Your task to perform on an android device: change notification settings in the gmail app Image 0: 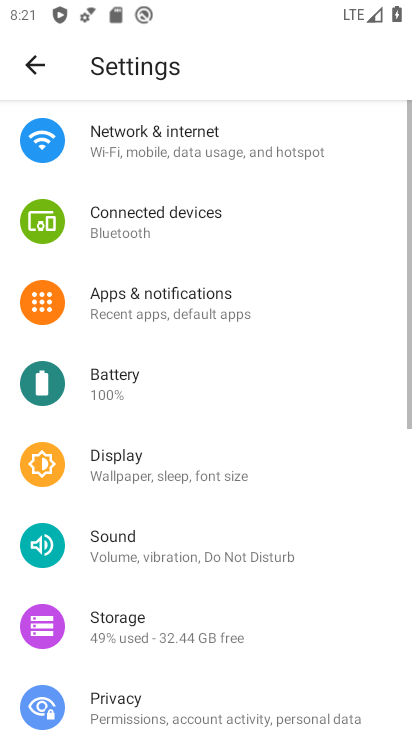
Step 0: press home button
Your task to perform on an android device: change notification settings in the gmail app Image 1: 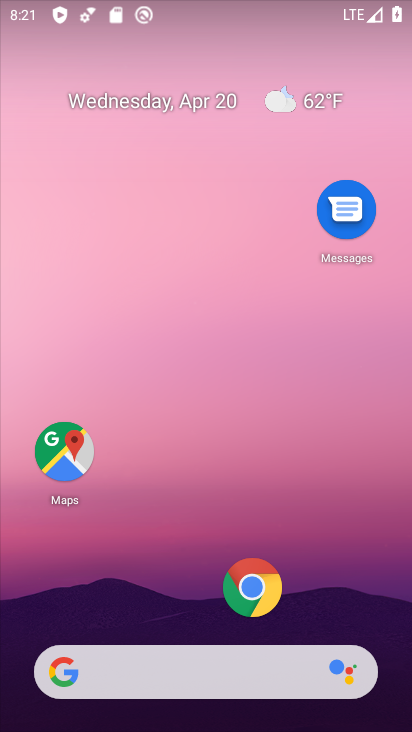
Step 1: drag from (145, 664) to (288, 122)
Your task to perform on an android device: change notification settings in the gmail app Image 2: 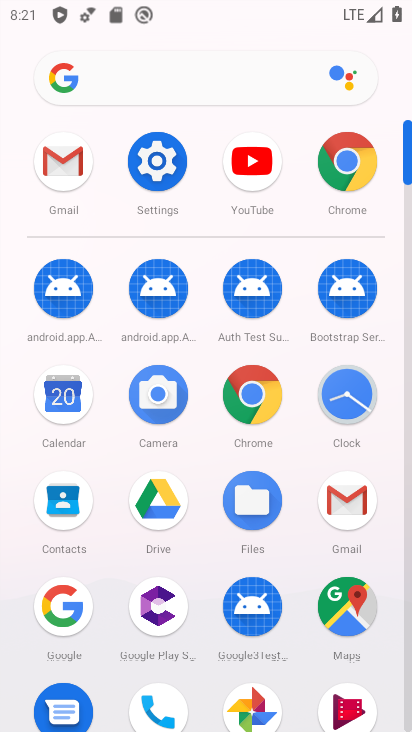
Step 2: click (66, 166)
Your task to perform on an android device: change notification settings in the gmail app Image 3: 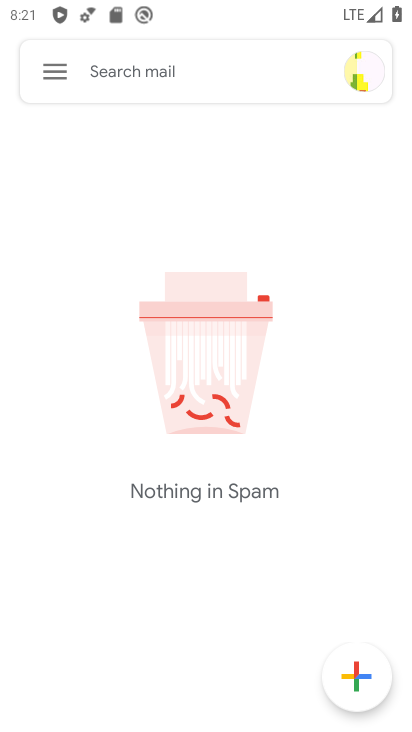
Step 3: click (53, 72)
Your task to perform on an android device: change notification settings in the gmail app Image 4: 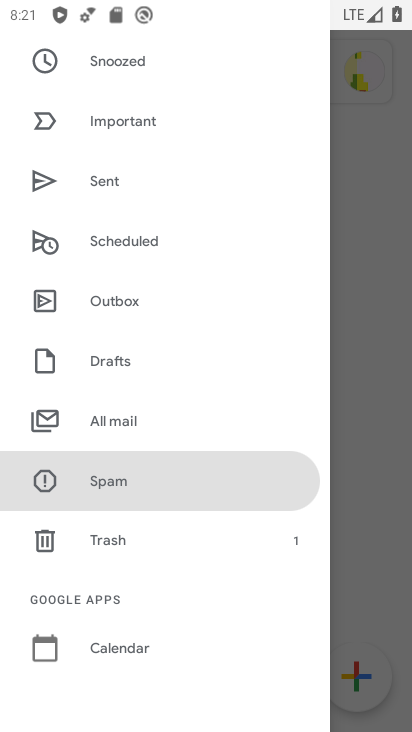
Step 4: drag from (165, 579) to (260, 145)
Your task to perform on an android device: change notification settings in the gmail app Image 5: 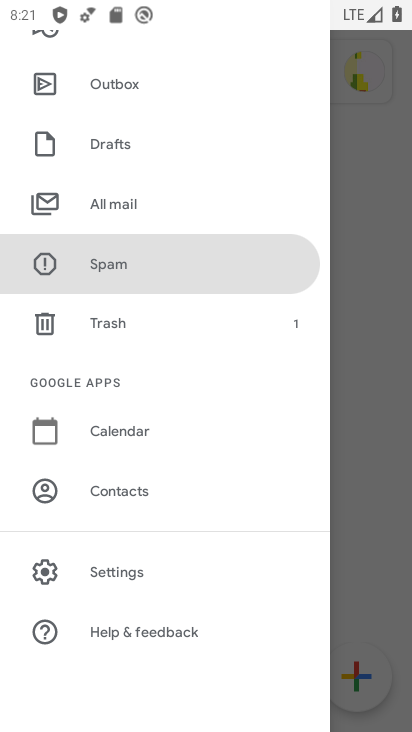
Step 5: click (112, 579)
Your task to perform on an android device: change notification settings in the gmail app Image 6: 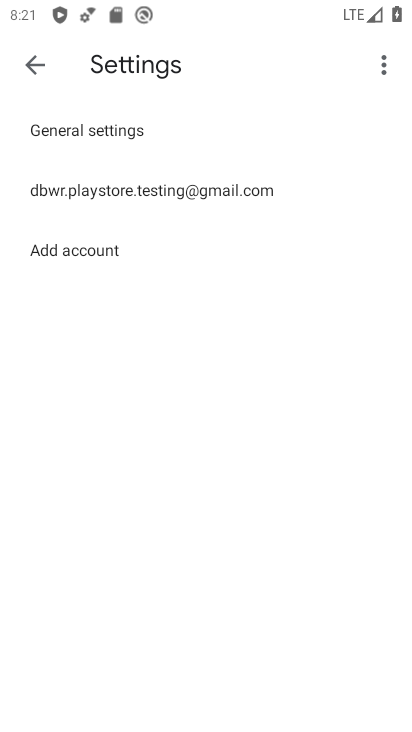
Step 6: click (214, 188)
Your task to perform on an android device: change notification settings in the gmail app Image 7: 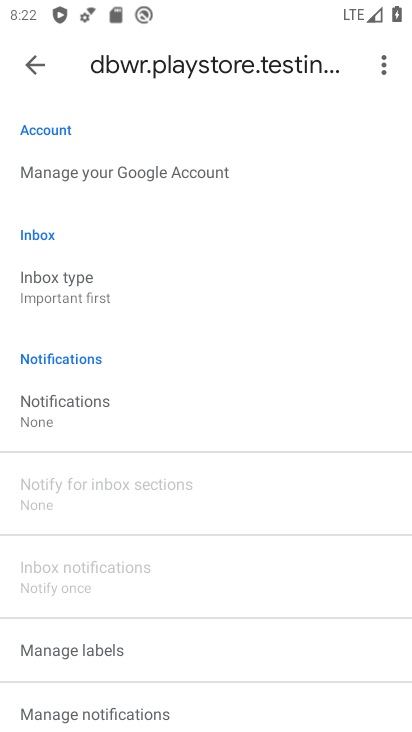
Step 7: click (59, 411)
Your task to perform on an android device: change notification settings in the gmail app Image 8: 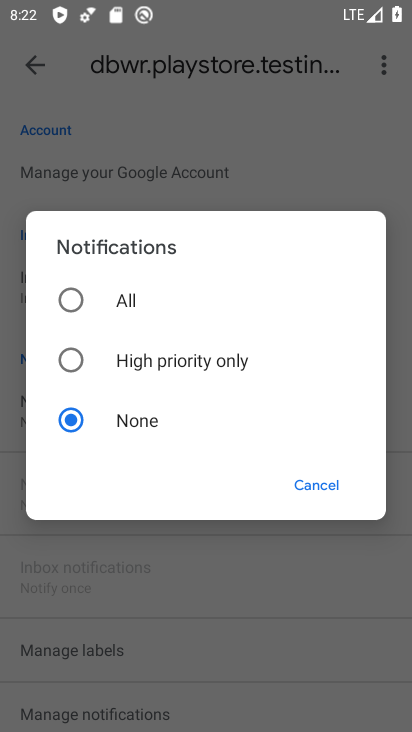
Step 8: click (64, 305)
Your task to perform on an android device: change notification settings in the gmail app Image 9: 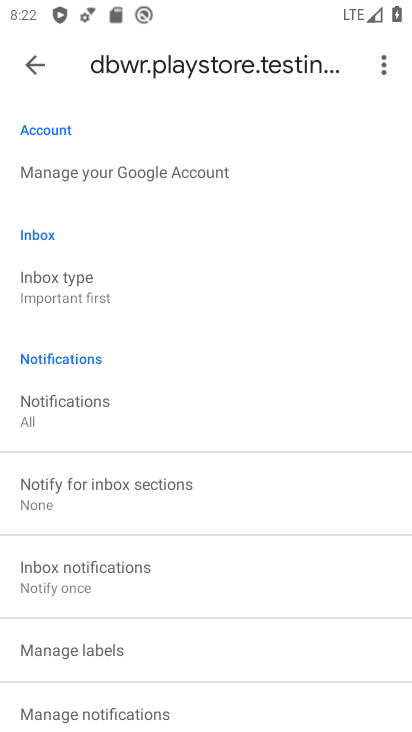
Step 9: task complete